Your task to perform on an android device: Open location settings Image 0: 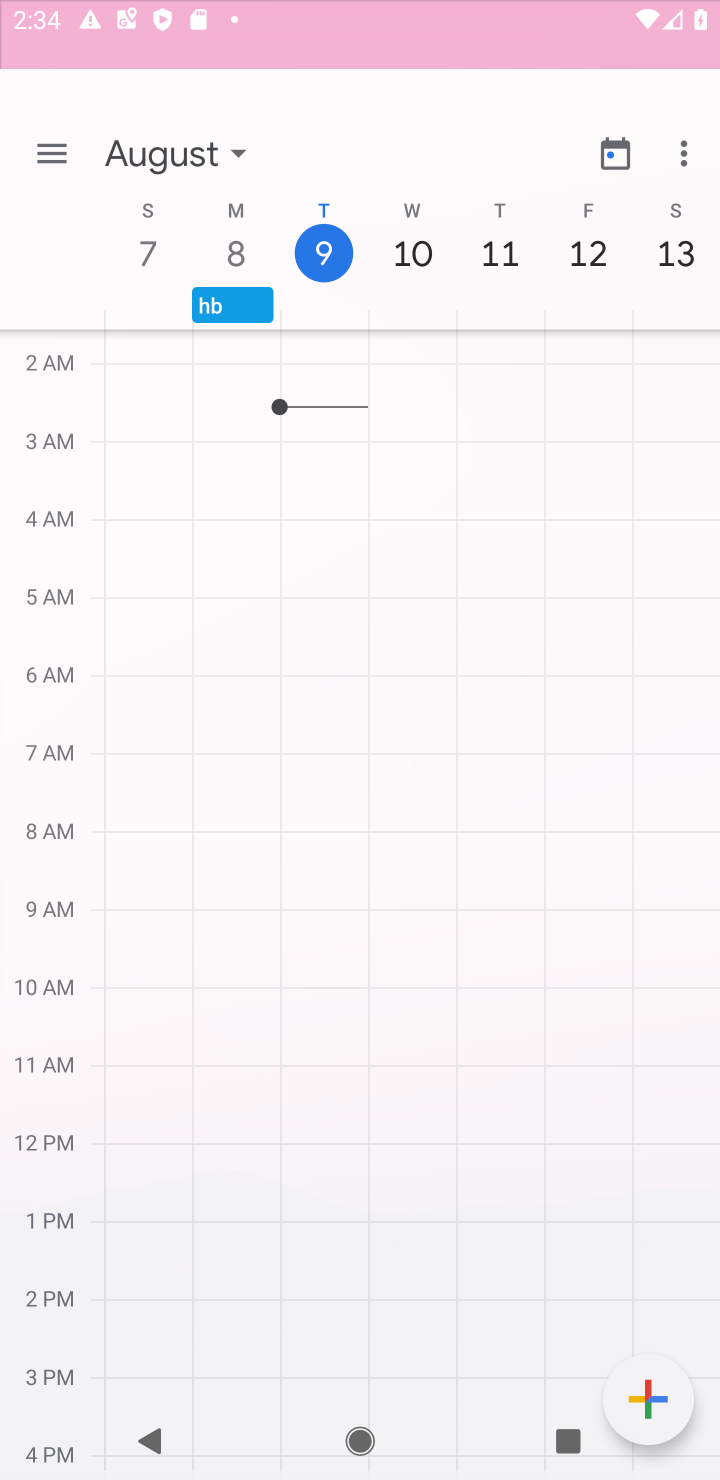
Step 0: press home button
Your task to perform on an android device: Open location settings Image 1: 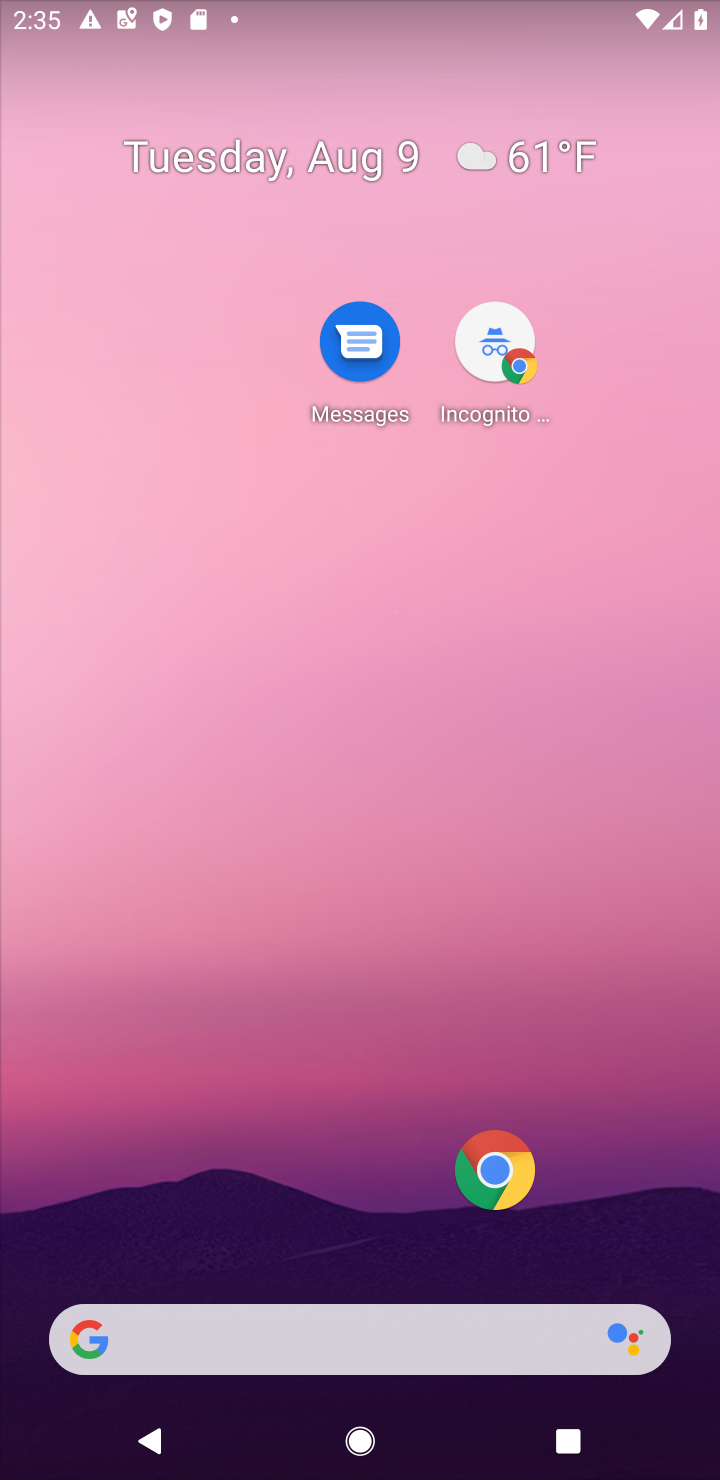
Step 1: drag from (278, 1112) to (349, 190)
Your task to perform on an android device: Open location settings Image 2: 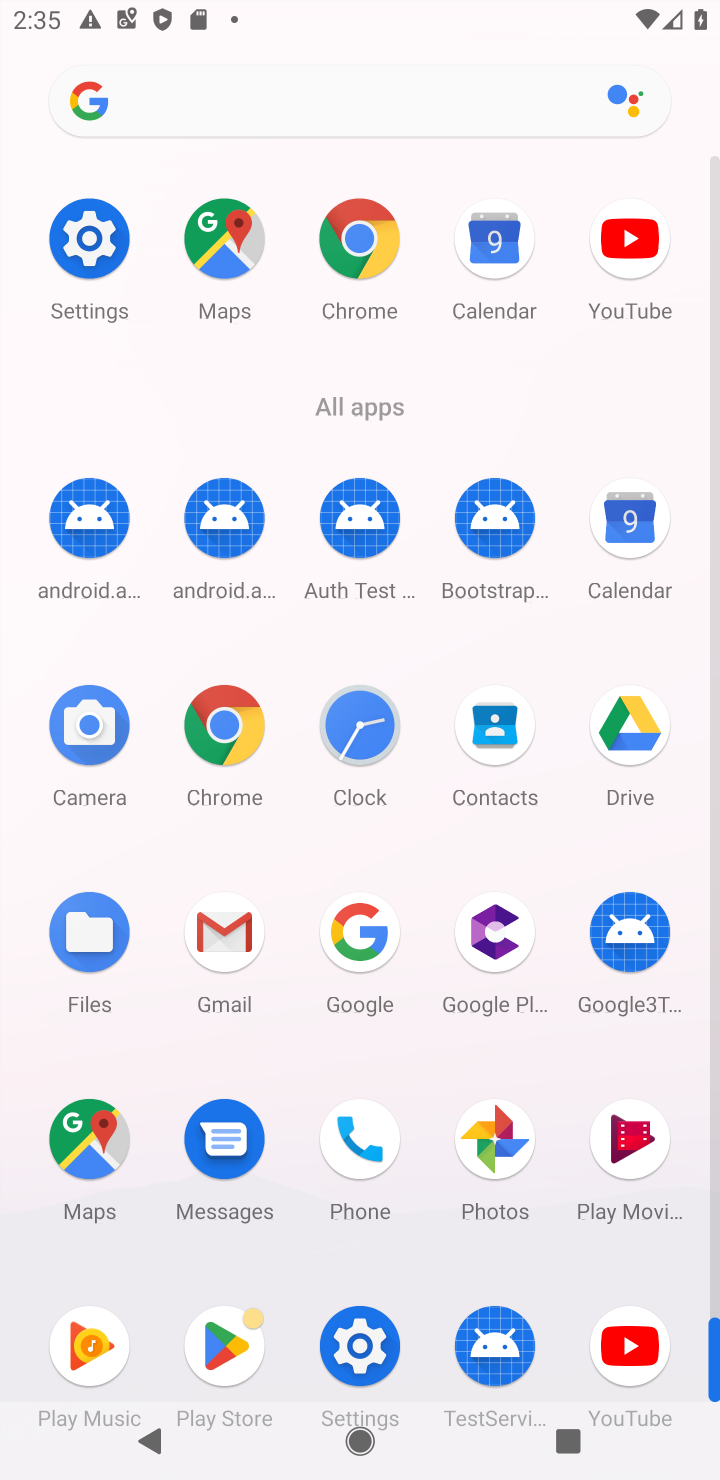
Step 2: click (364, 1338)
Your task to perform on an android device: Open location settings Image 3: 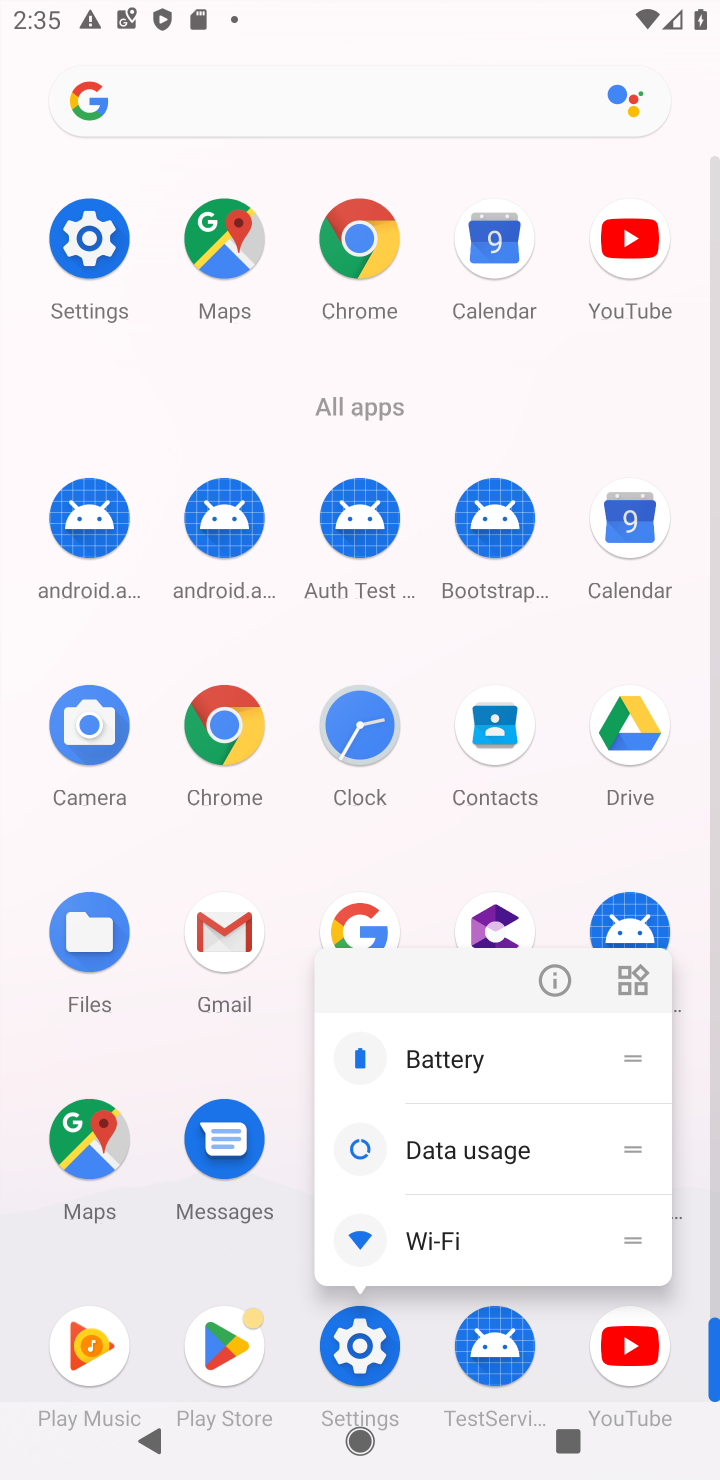
Step 3: click (364, 1338)
Your task to perform on an android device: Open location settings Image 4: 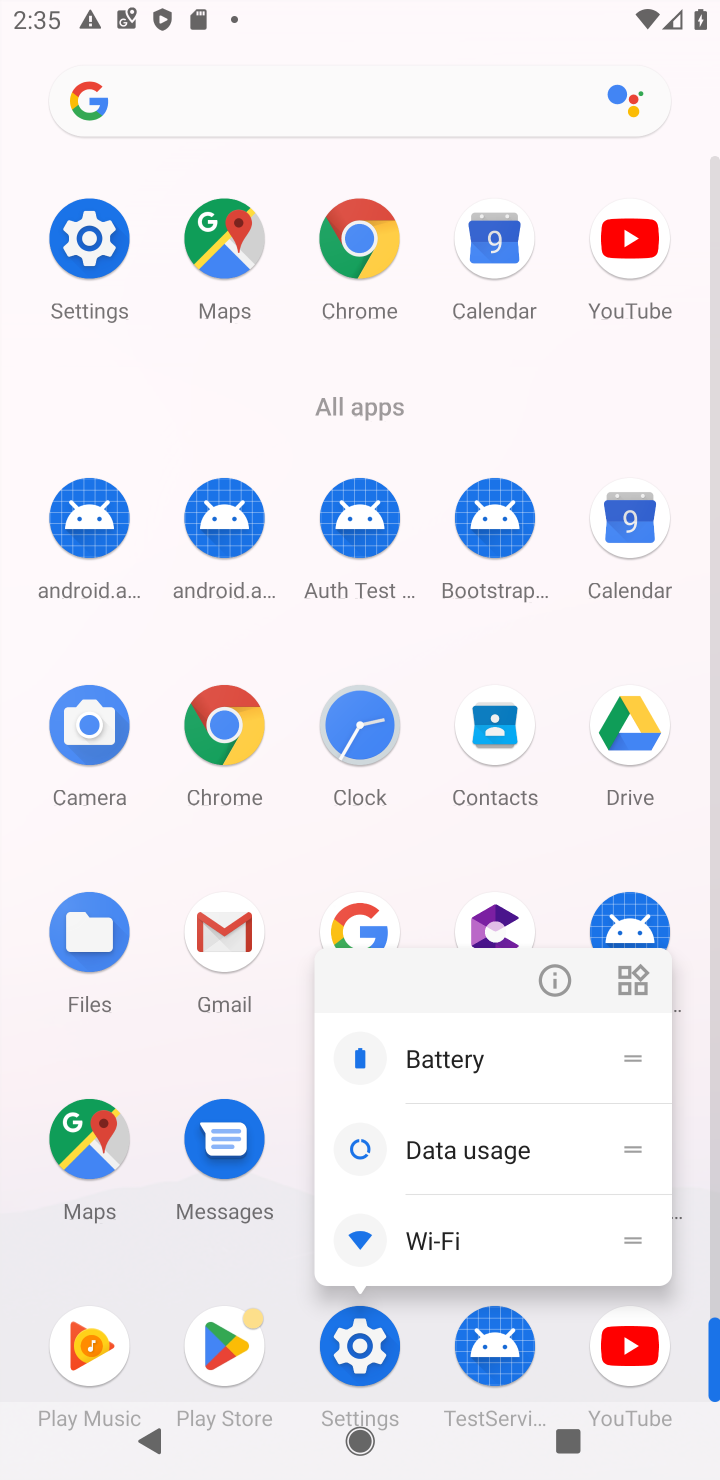
Step 4: click (365, 1338)
Your task to perform on an android device: Open location settings Image 5: 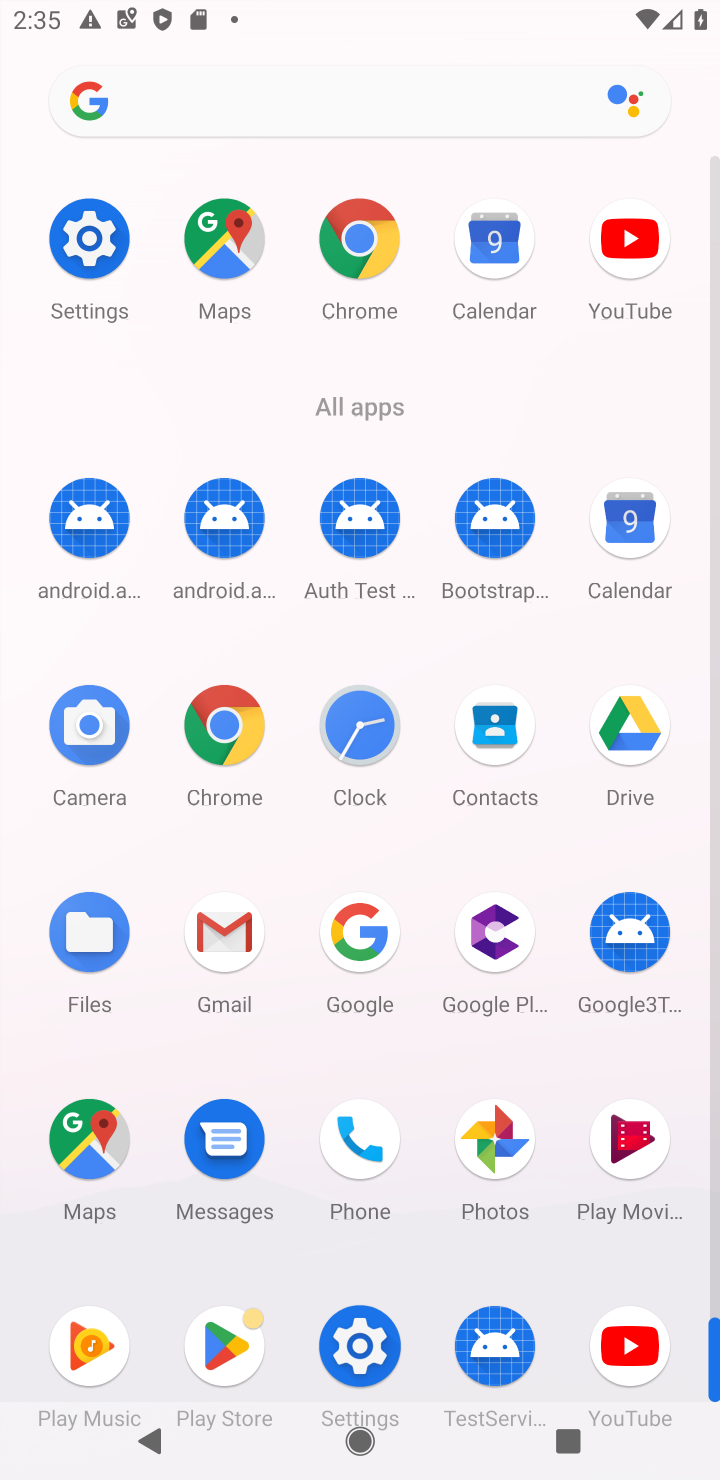
Step 5: click (375, 1342)
Your task to perform on an android device: Open location settings Image 6: 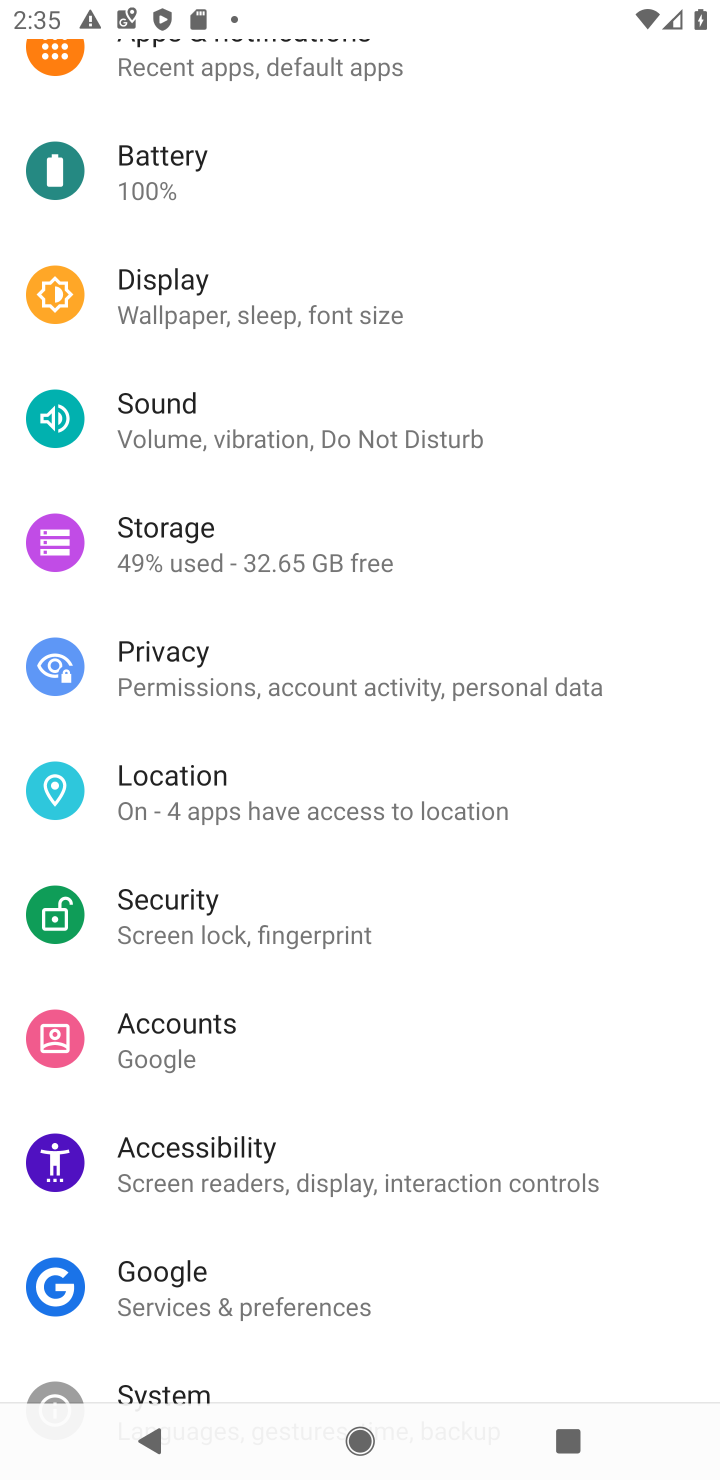
Step 6: click (190, 794)
Your task to perform on an android device: Open location settings Image 7: 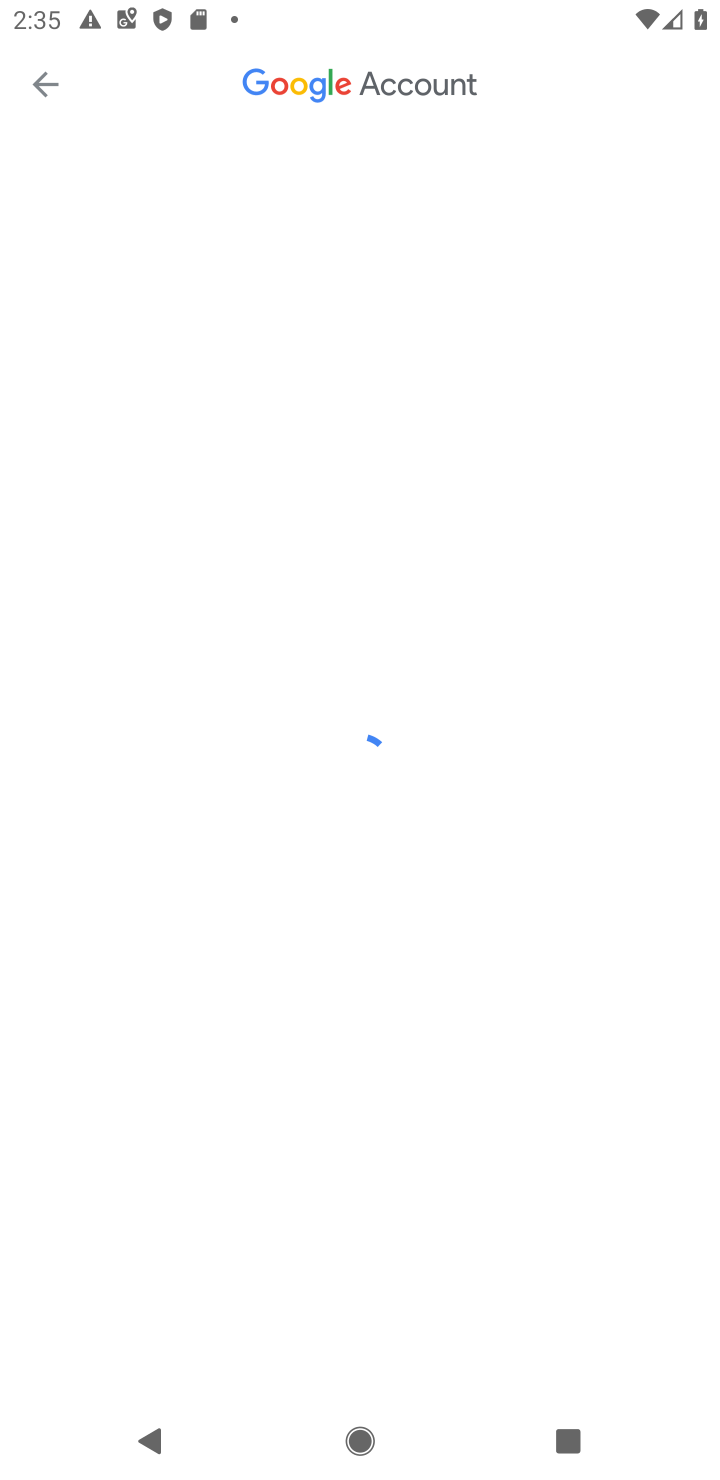
Step 7: click (47, 73)
Your task to perform on an android device: Open location settings Image 8: 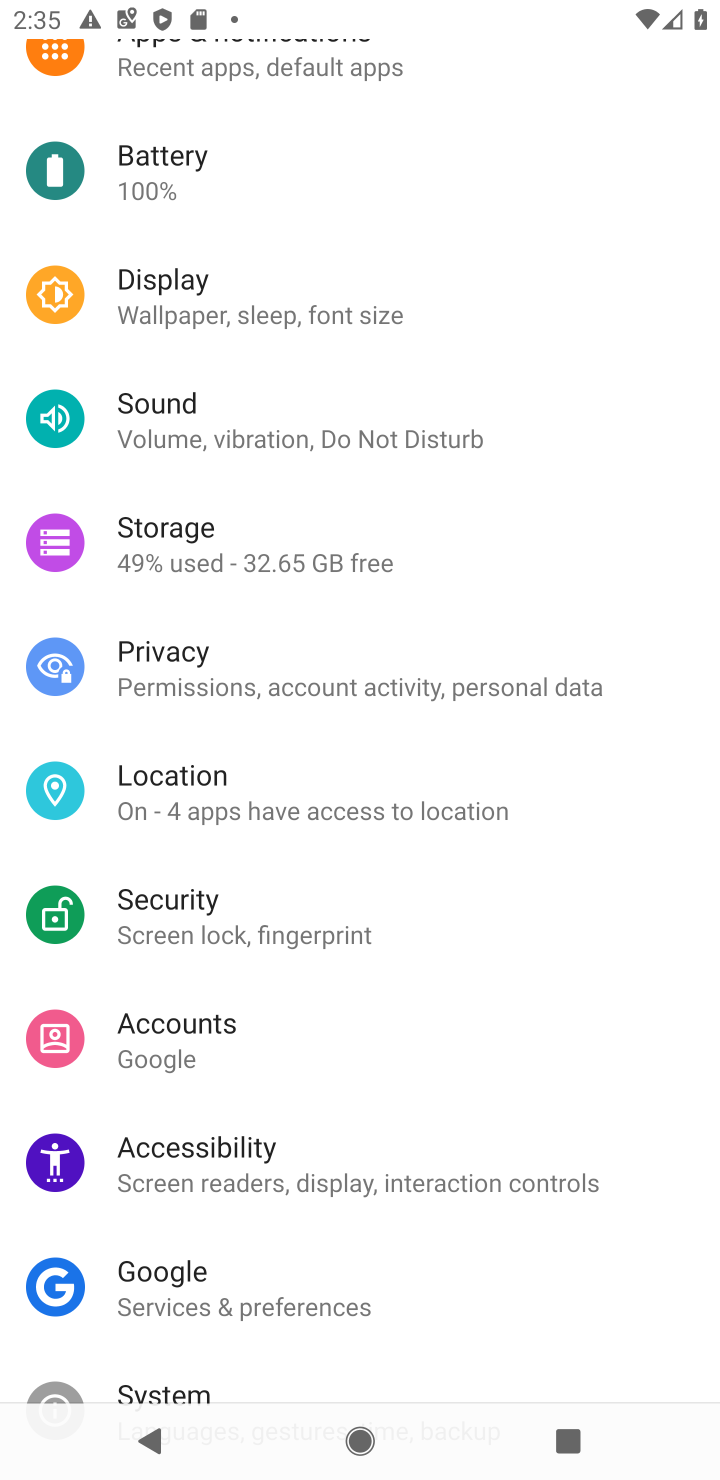
Step 8: click (274, 804)
Your task to perform on an android device: Open location settings Image 9: 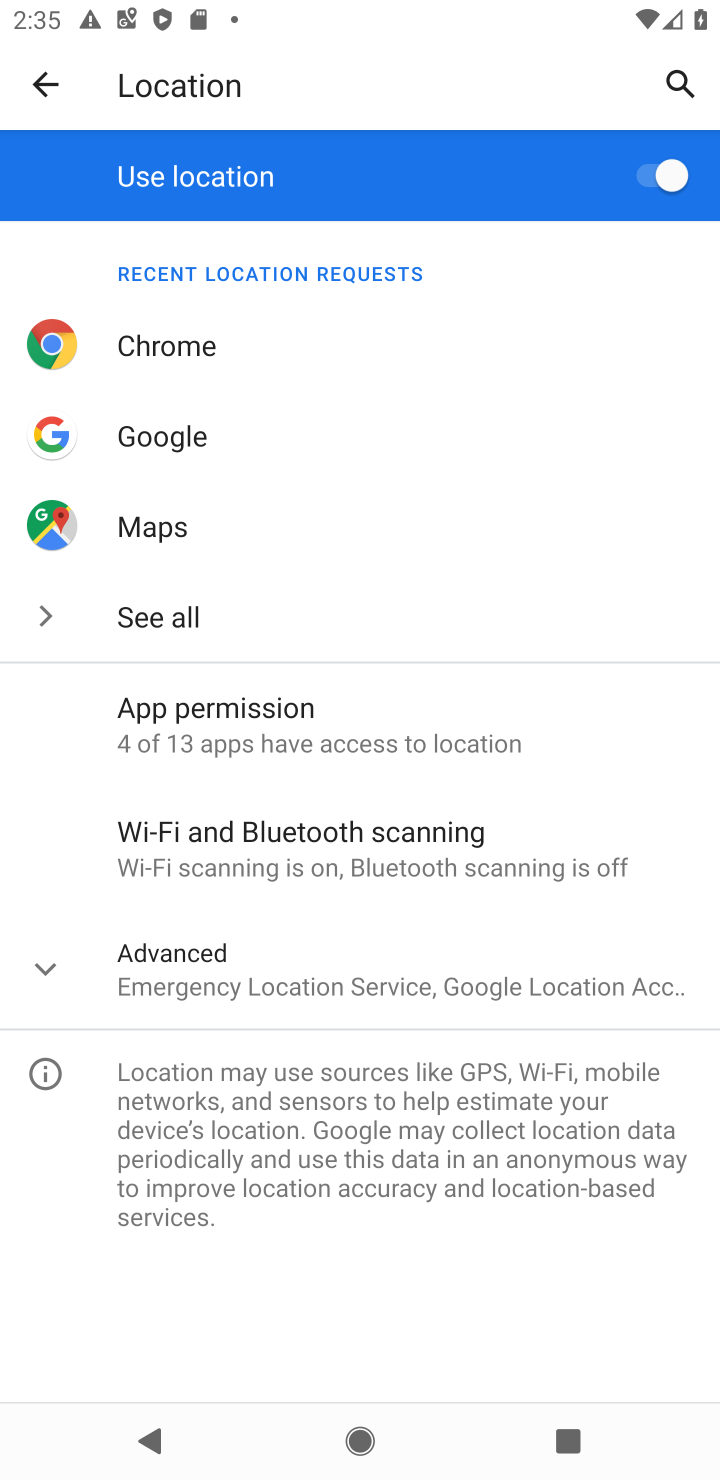
Step 9: task complete